Your task to perform on an android device: Search for seafood restaurants on Google Maps Image 0: 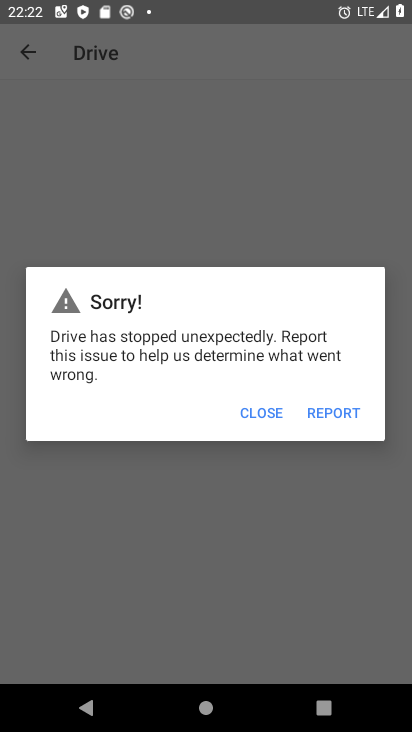
Step 0: press home button
Your task to perform on an android device: Search for seafood restaurants on Google Maps Image 1: 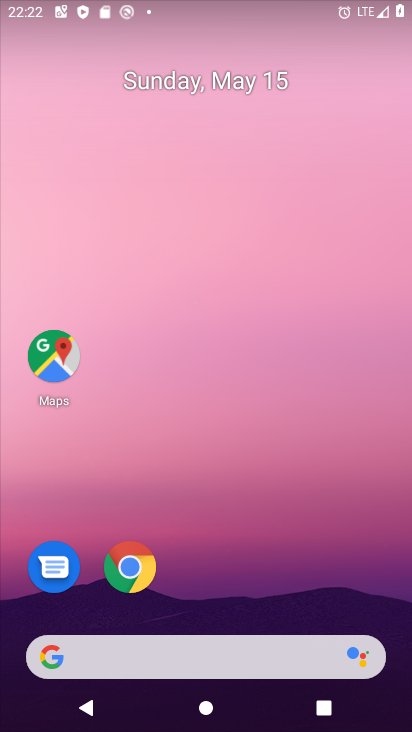
Step 1: click (51, 360)
Your task to perform on an android device: Search for seafood restaurants on Google Maps Image 2: 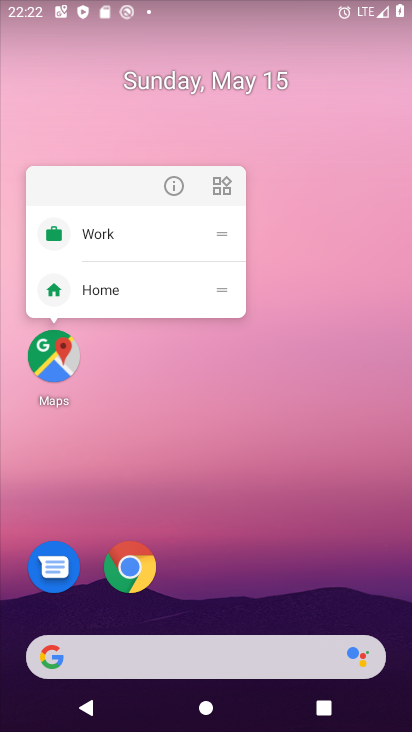
Step 2: click (51, 360)
Your task to perform on an android device: Search for seafood restaurants on Google Maps Image 3: 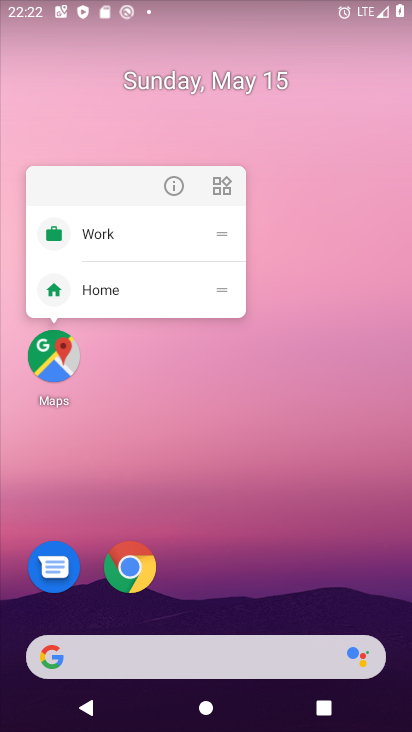
Step 3: click (51, 360)
Your task to perform on an android device: Search for seafood restaurants on Google Maps Image 4: 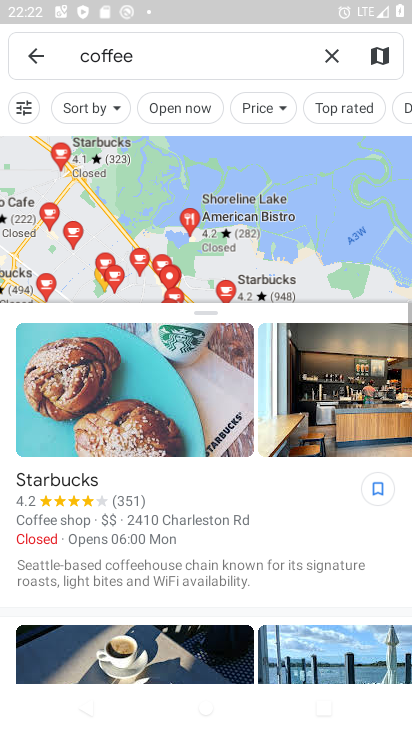
Step 4: click (361, 49)
Your task to perform on an android device: Search for seafood restaurants on Google Maps Image 5: 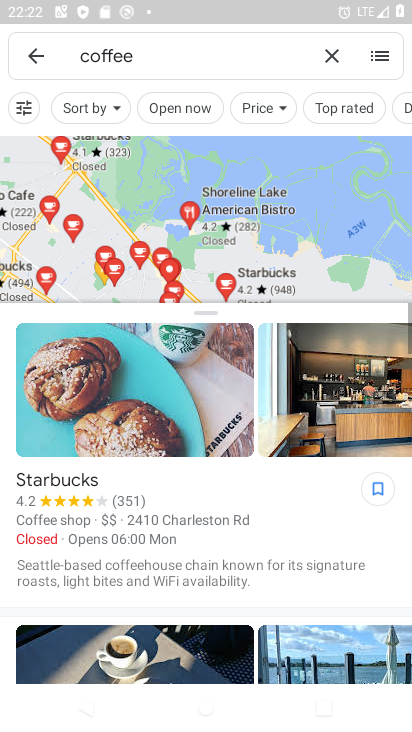
Step 5: click (335, 55)
Your task to perform on an android device: Search for seafood restaurants on Google Maps Image 6: 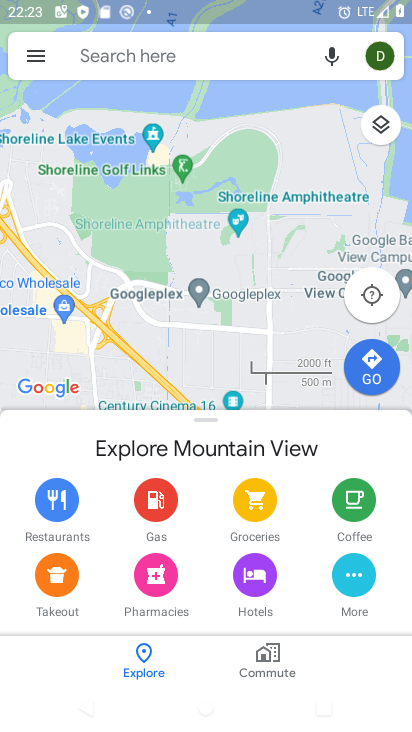
Step 6: click (289, 59)
Your task to perform on an android device: Search for seafood restaurants on Google Maps Image 7: 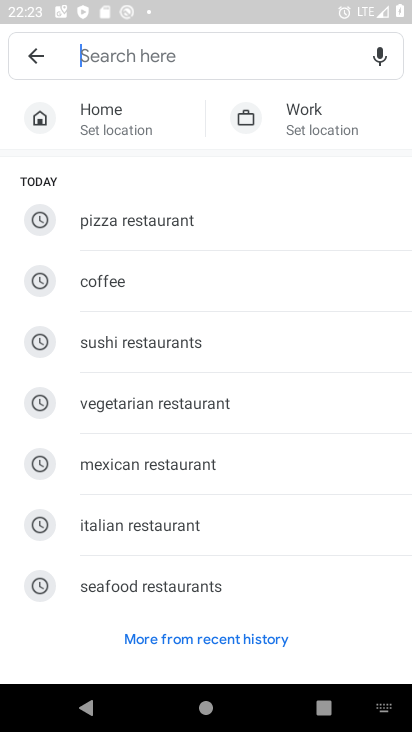
Step 7: click (219, 590)
Your task to perform on an android device: Search for seafood restaurants on Google Maps Image 8: 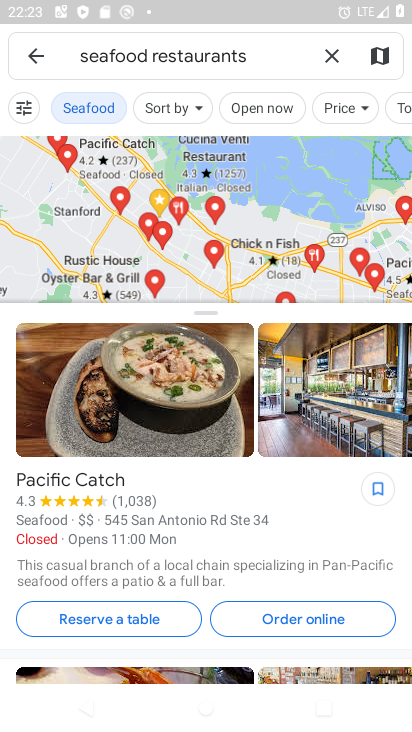
Step 8: task complete